Your task to perform on an android device: toggle pop-ups in chrome Image 0: 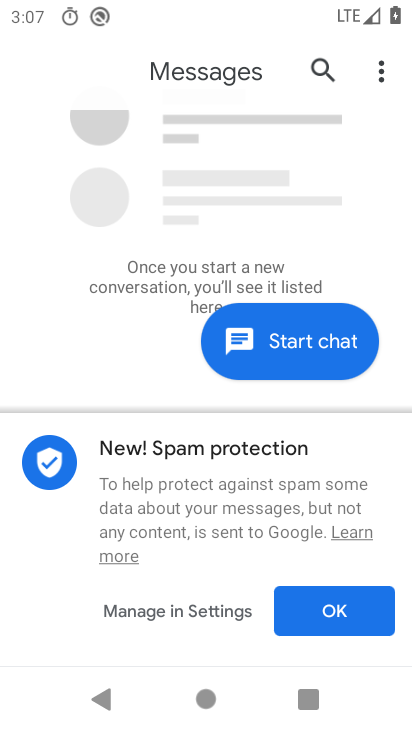
Step 0: press home button
Your task to perform on an android device: toggle pop-ups in chrome Image 1: 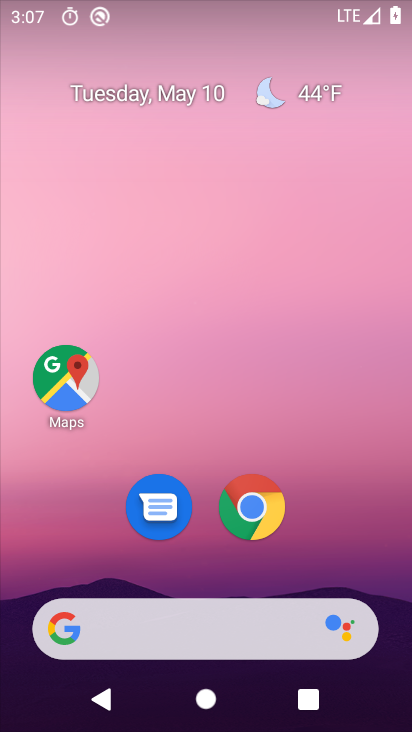
Step 1: click (265, 497)
Your task to perform on an android device: toggle pop-ups in chrome Image 2: 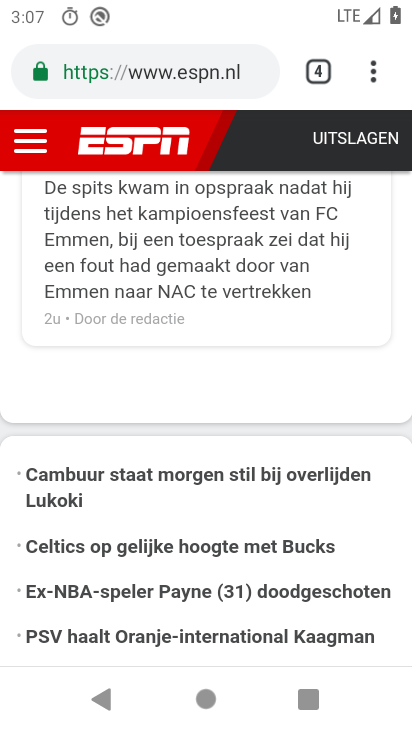
Step 2: click (371, 67)
Your task to perform on an android device: toggle pop-ups in chrome Image 3: 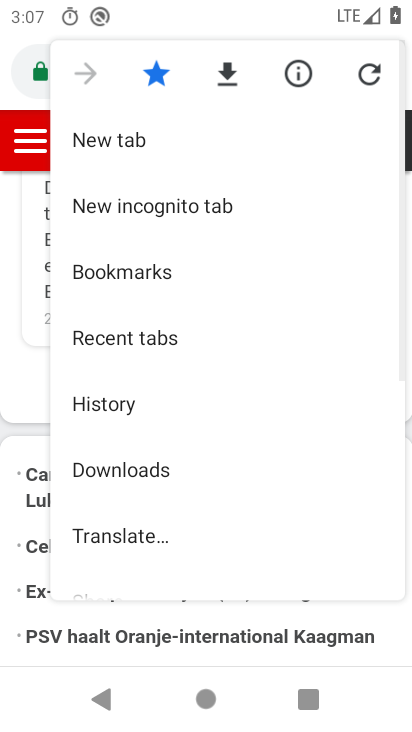
Step 3: drag from (175, 564) to (159, 252)
Your task to perform on an android device: toggle pop-ups in chrome Image 4: 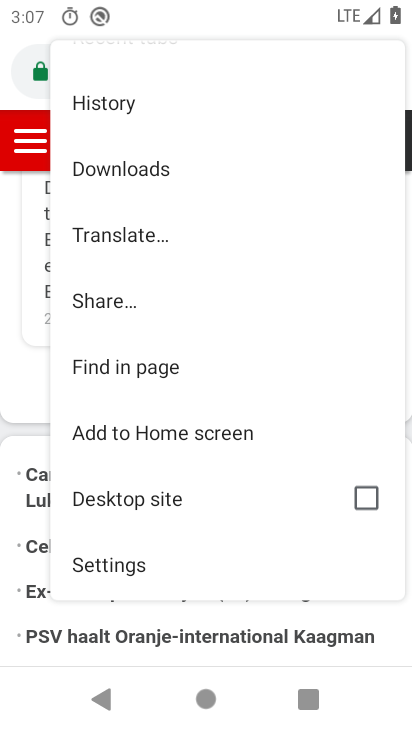
Step 4: click (89, 566)
Your task to perform on an android device: toggle pop-ups in chrome Image 5: 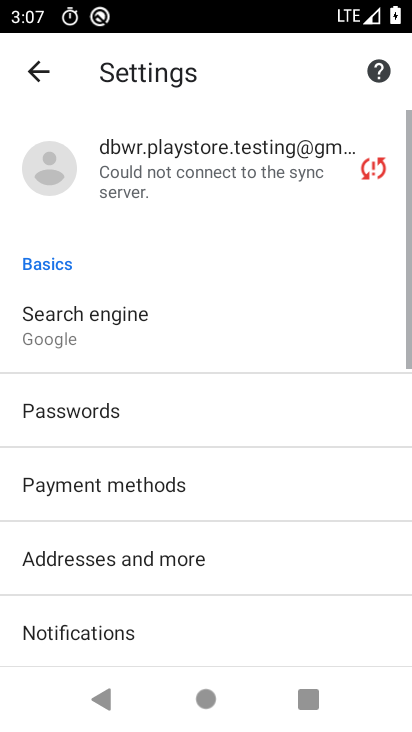
Step 5: drag from (92, 641) to (86, 343)
Your task to perform on an android device: toggle pop-ups in chrome Image 6: 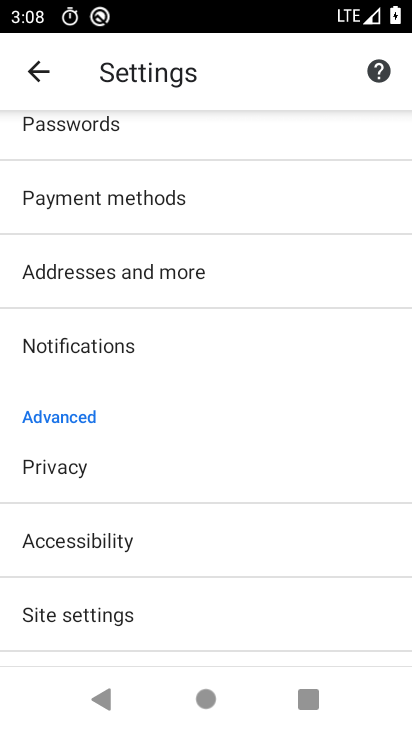
Step 6: click (110, 612)
Your task to perform on an android device: toggle pop-ups in chrome Image 7: 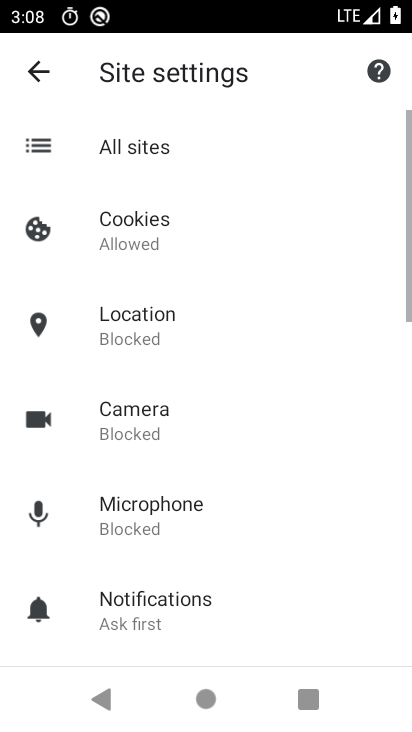
Step 7: drag from (131, 635) to (130, 399)
Your task to perform on an android device: toggle pop-ups in chrome Image 8: 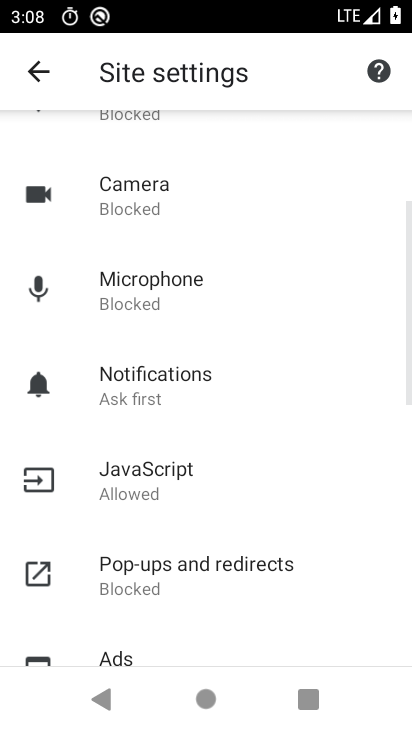
Step 8: click (109, 587)
Your task to perform on an android device: toggle pop-ups in chrome Image 9: 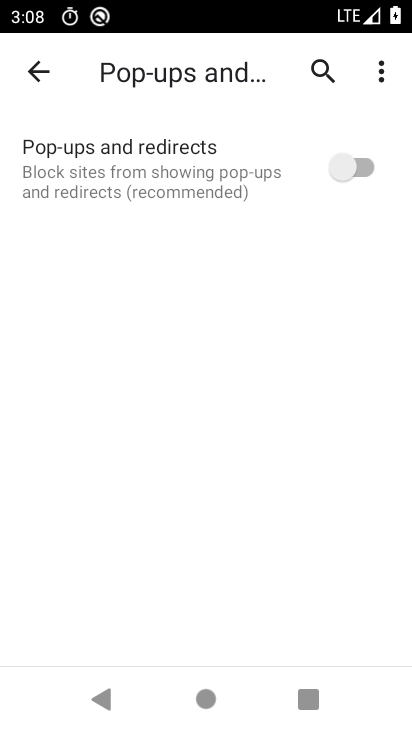
Step 9: click (364, 165)
Your task to perform on an android device: toggle pop-ups in chrome Image 10: 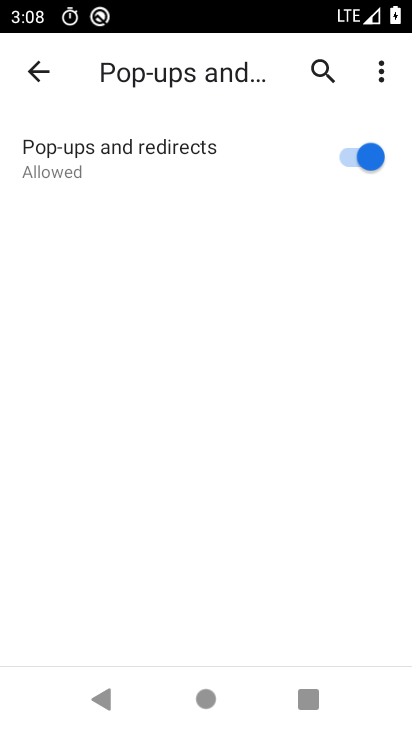
Step 10: task complete